Your task to perform on an android device: Open eBay Image 0: 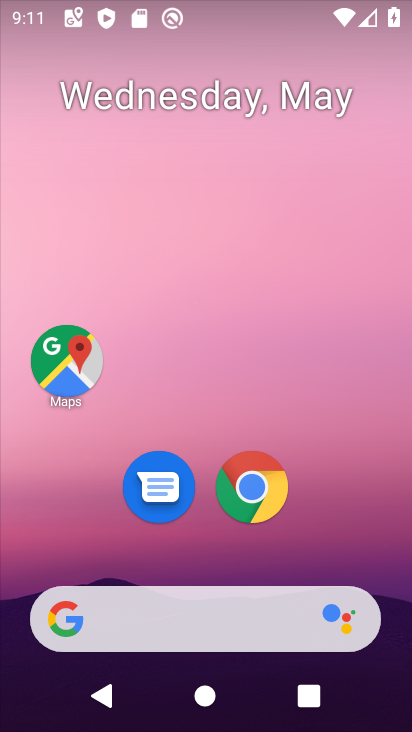
Step 0: click (266, 483)
Your task to perform on an android device: Open eBay Image 1: 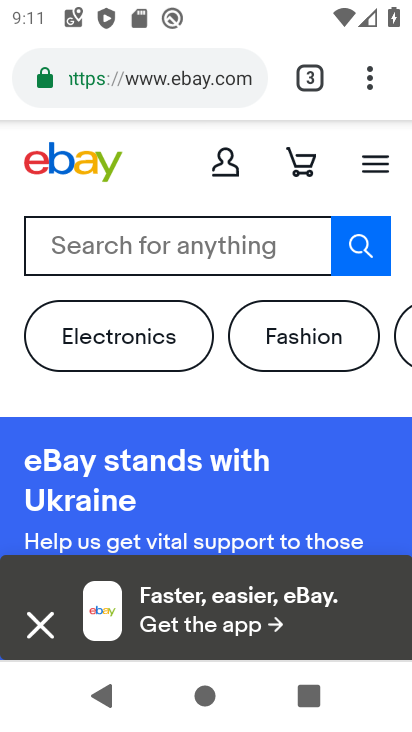
Step 1: task complete